Your task to perform on an android device: open a bookmark in the chrome app Image 0: 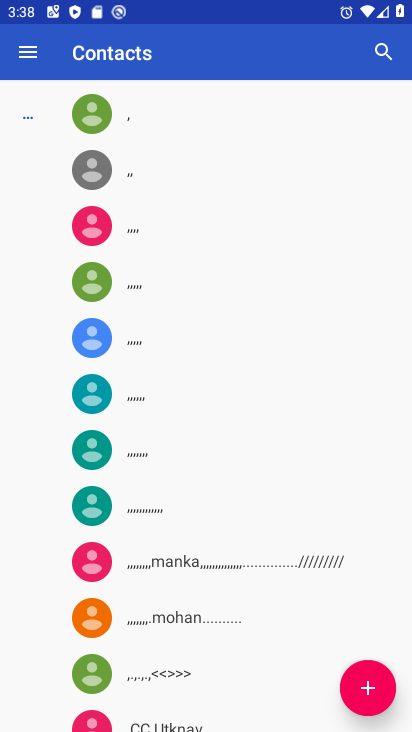
Step 0: press home button
Your task to perform on an android device: open a bookmark in the chrome app Image 1: 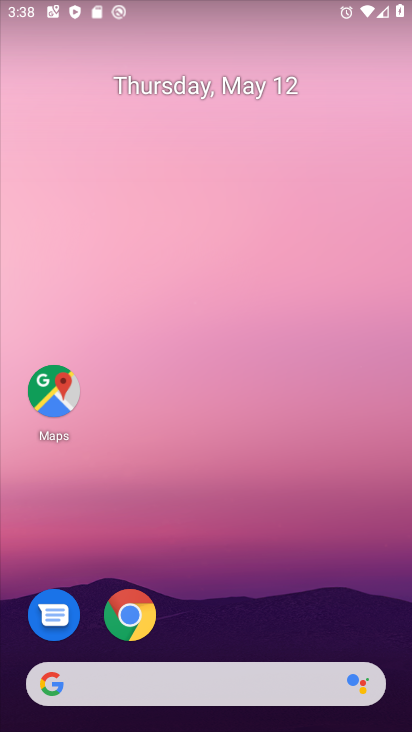
Step 1: click (140, 613)
Your task to perform on an android device: open a bookmark in the chrome app Image 2: 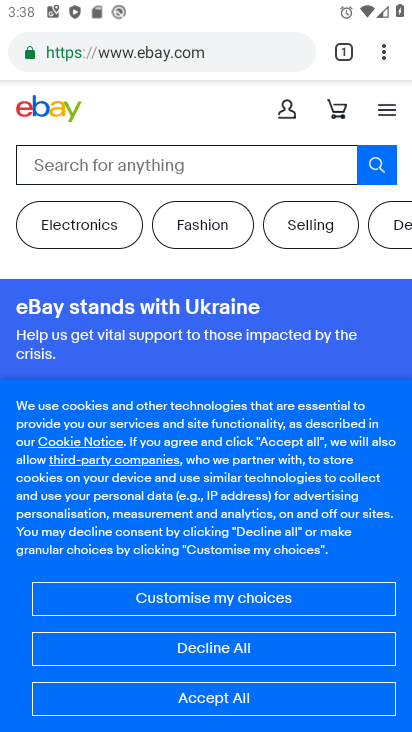
Step 2: click (381, 56)
Your task to perform on an android device: open a bookmark in the chrome app Image 3: 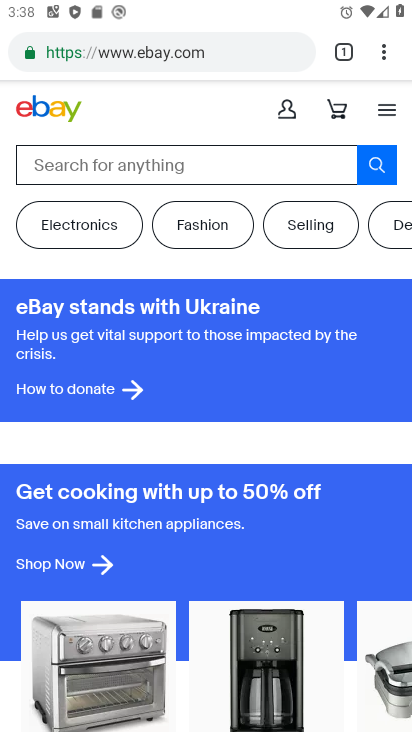
Step 3: click (386, 49)
Your task to perform on an android device: open a bookmark in the chrome app Image 4: 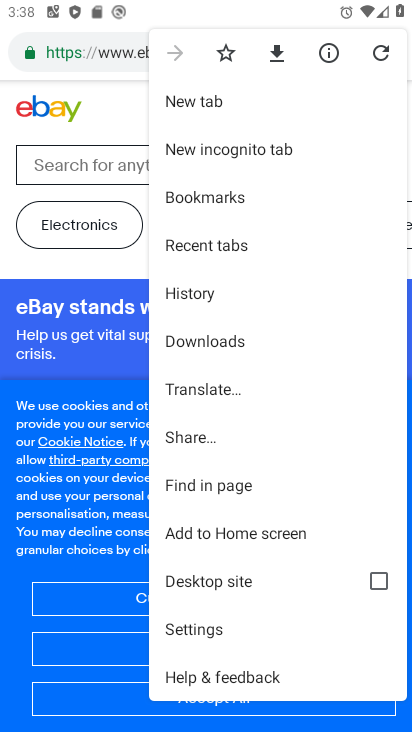
Step 4: click (235, 201)
Your task to perform on an android device: open a bookmark in the chrome app Image 5: 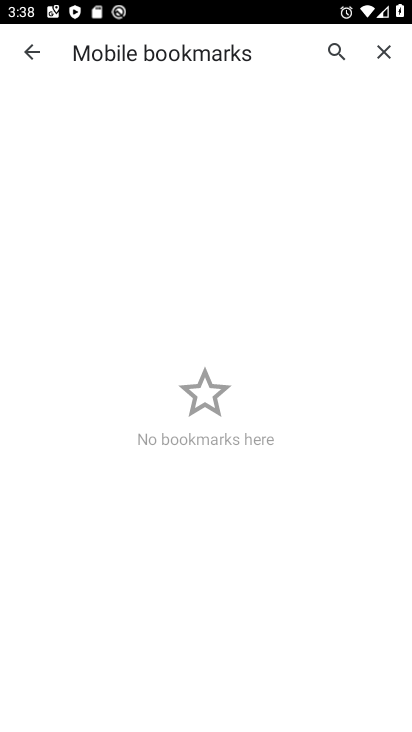
Step 5: task complete